Your task to perform on an android device: Open network settings Image 0: 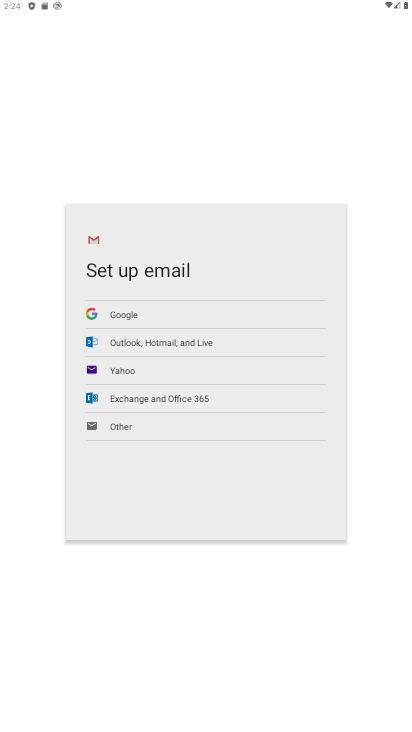
Step 0: press home button
Your task to perform on an android device: Open network settings Image 1: 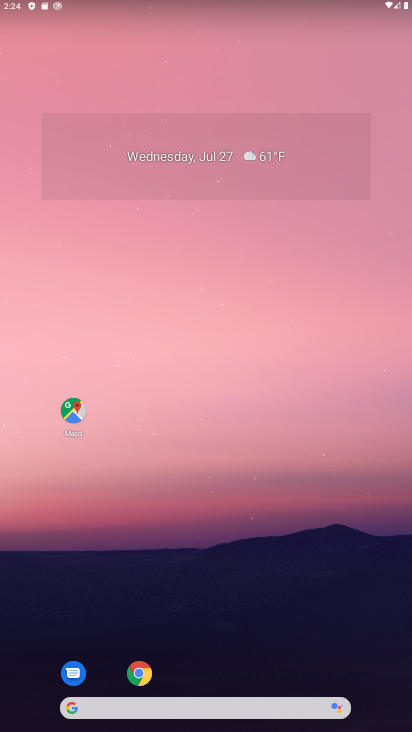
Step 1: drag from (14, 687) to (410, 428)
Your task to perform on an android device: Open network settings Image 2: 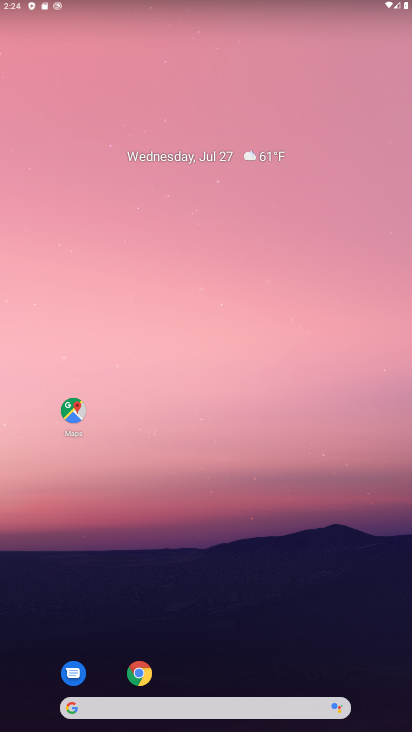
Step 2: click (342, 14)
Your task to perform on an android device: Open network settings Image 3: 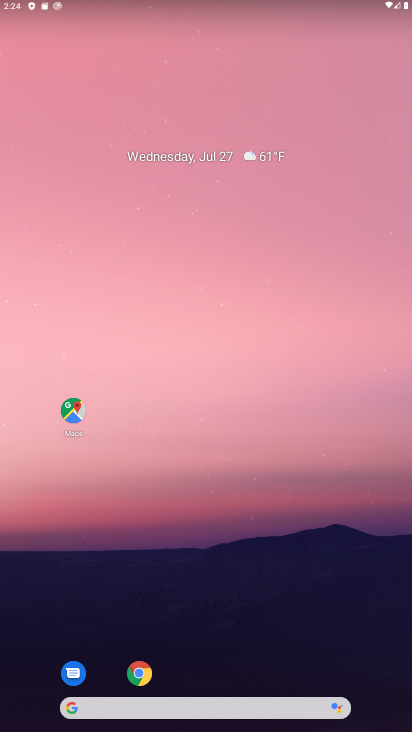
Step 3: drag from (58, 662) to (180, 177)
Your task to perform on an android device: Open network settings Image 4: 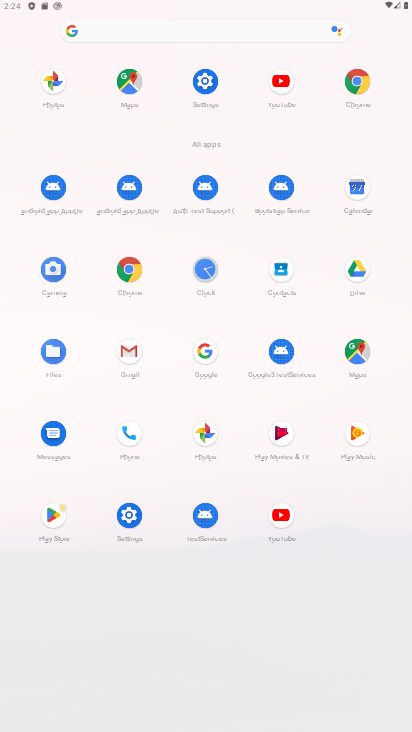
Step 4: click (120, 520)
Your task to perform on an android device: Open network settings Image 5: 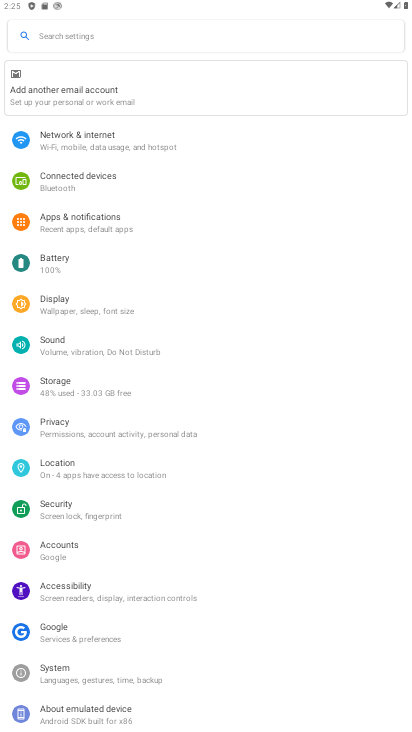
Step 5: click (92, 147)
Your task to perform on an android device: Open network settings Image 6: 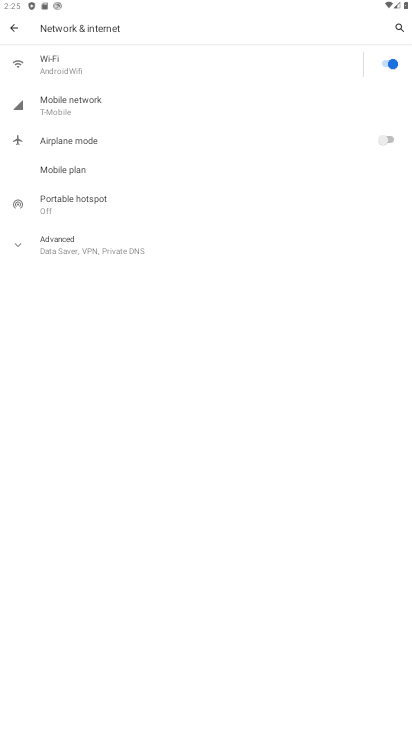
Step 6: task complete